Your task to perform on an android device: Open Google Maps Image 0: 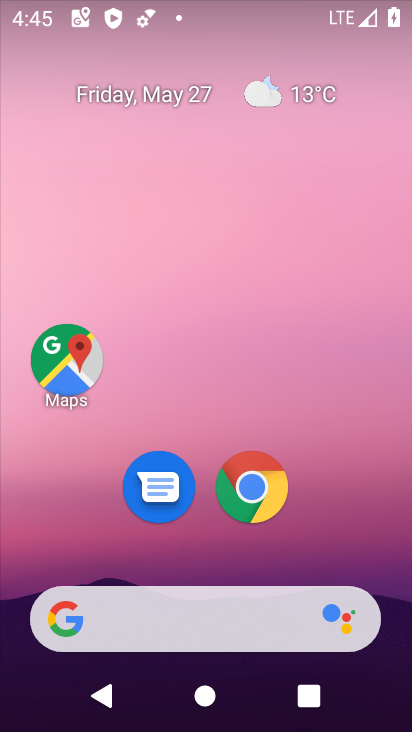
Step 0: drag from (324, 506) to (334, 28)
Your task to perform on an android device: Open Google Maps Image 1: 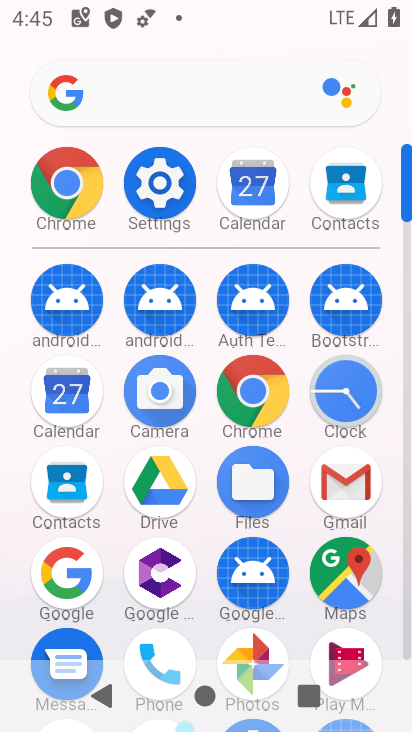
Step 1: click (340, 563)
Your task to perform on an android device: Open Google Maps Image 2: 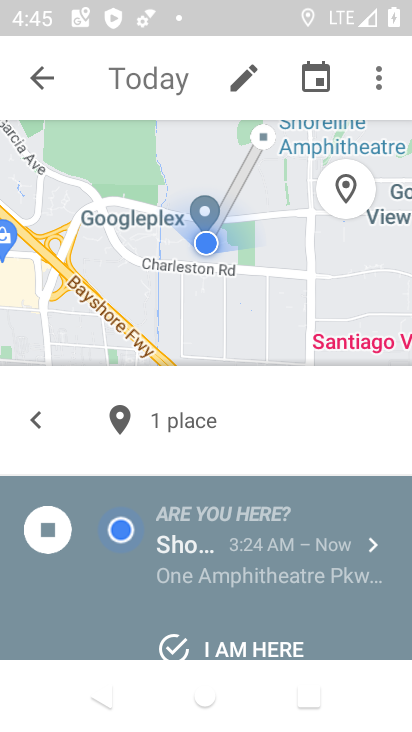
Step 2: task complete